Your task to perform on an android device: Open the calendar app, open the side menu, and click the "Day" option Image 0: 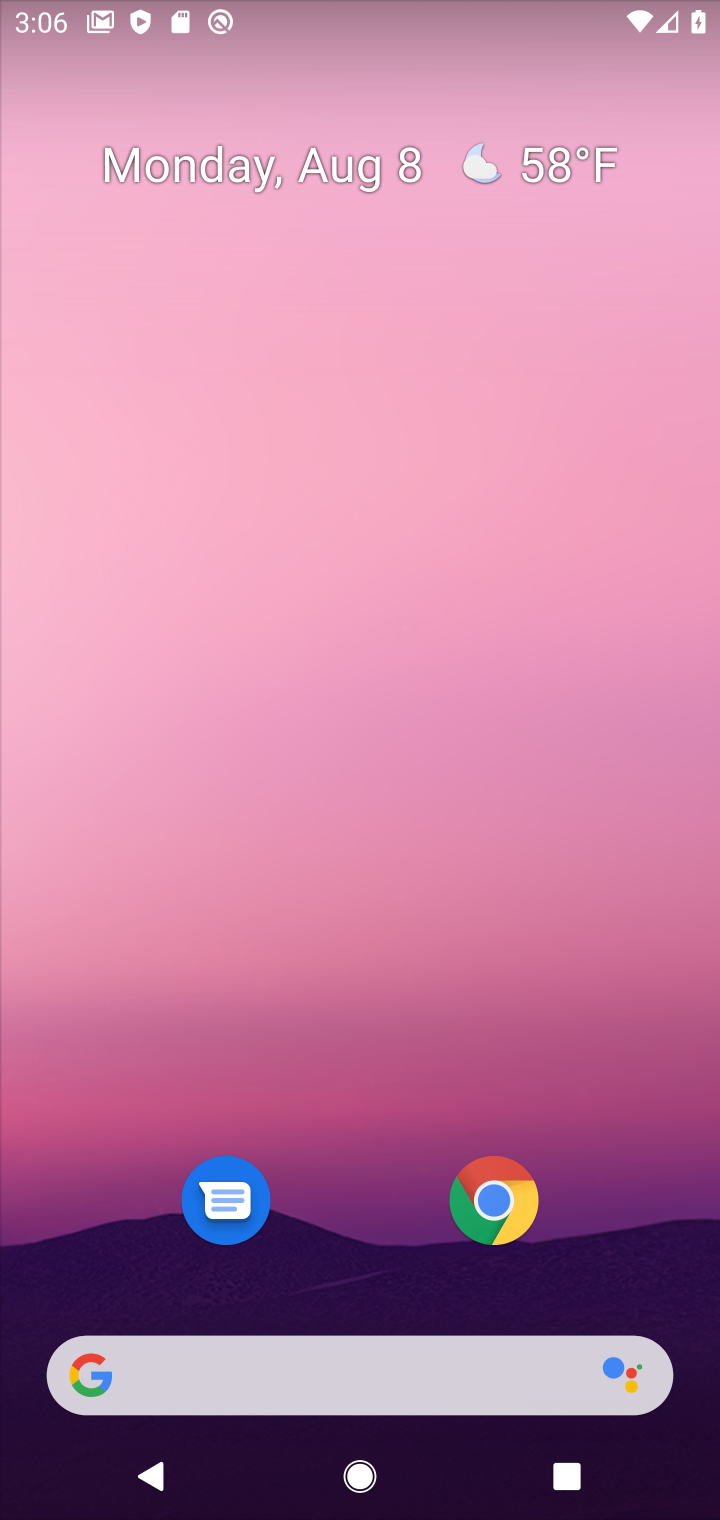
Step 0: drag from (662, 1208) to (459, 387)
Your task to perform on an android device: Open the calendar app, open the side menu, and click the "Day" option Image 1: 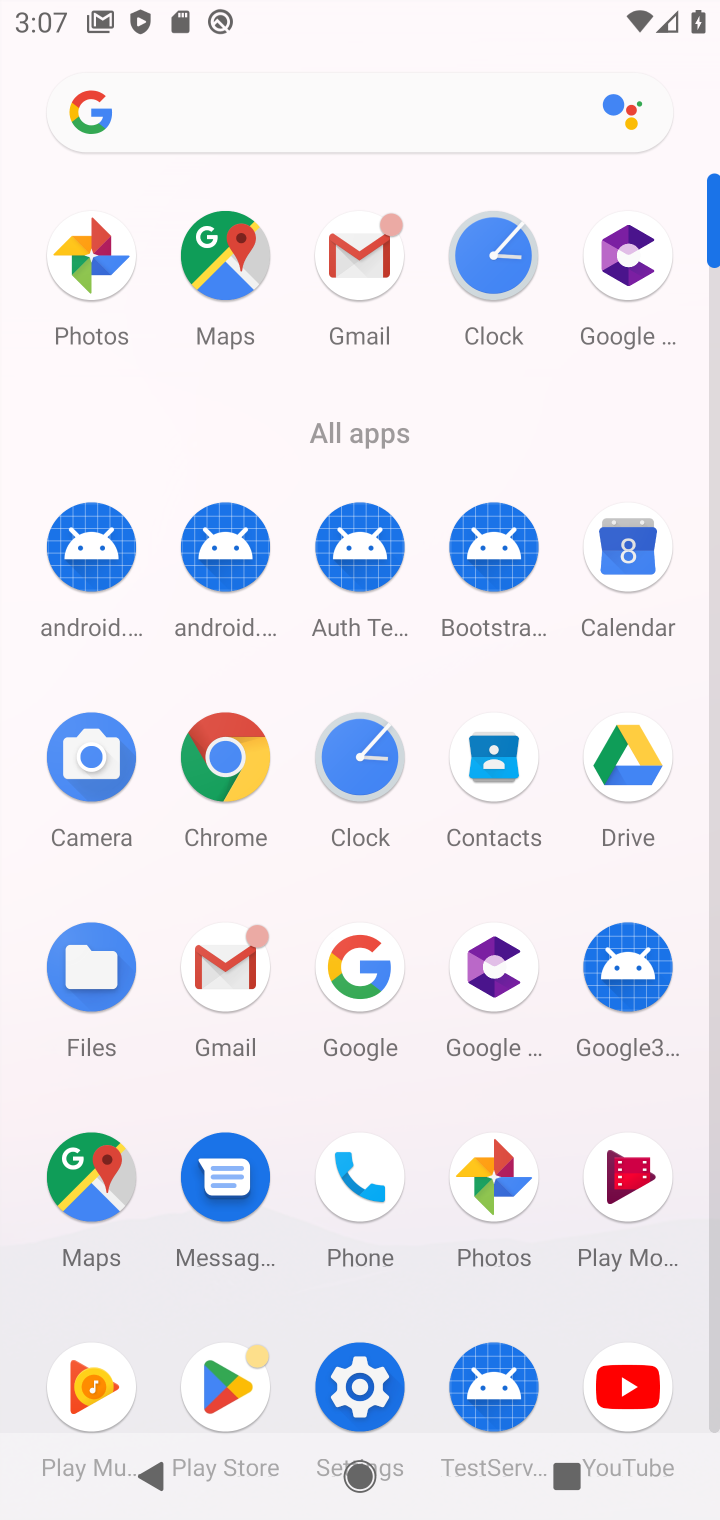
Step 1: click (614, 568)
Your task to perform on an android device: Open the calendar app, open the side menu, and click the "Day" option Image 2: 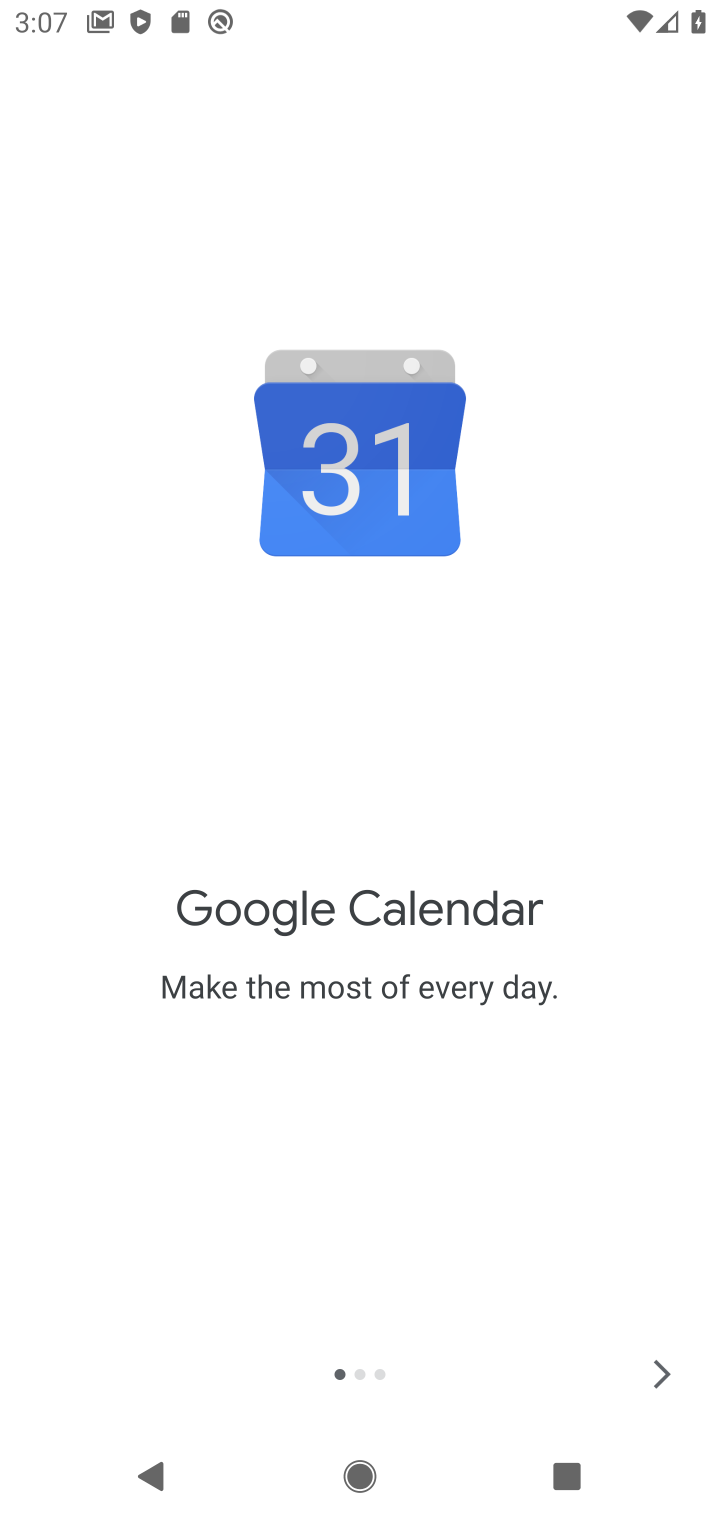
Step 2: click (659, 1373)
Your task to perform on an android device: Open the calendar app, open the side menu, and click the "Day" option Image 3: 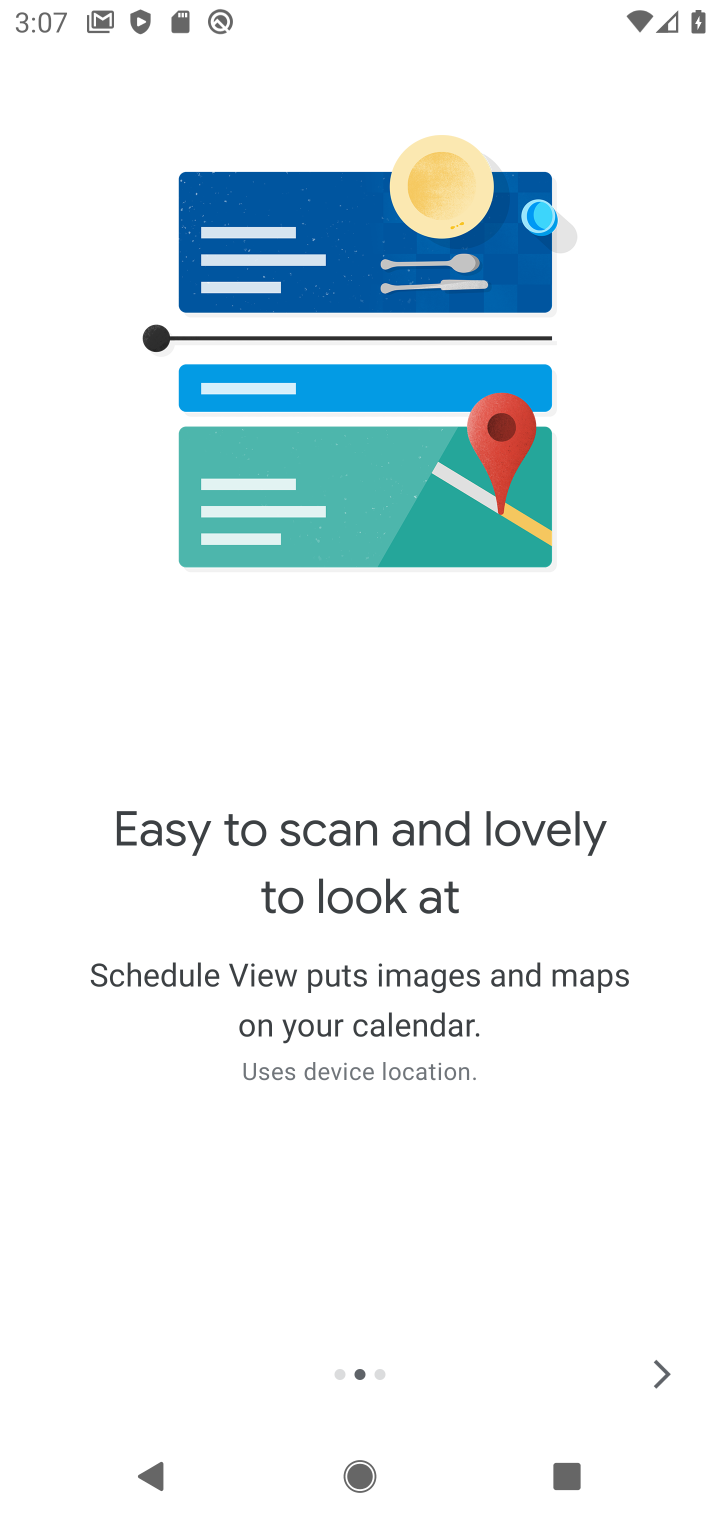
Step 3: click (659, 1373)
Your task to perform on an android device: Open the calendar app, open the side menu, and click the "Day" option Image 4: 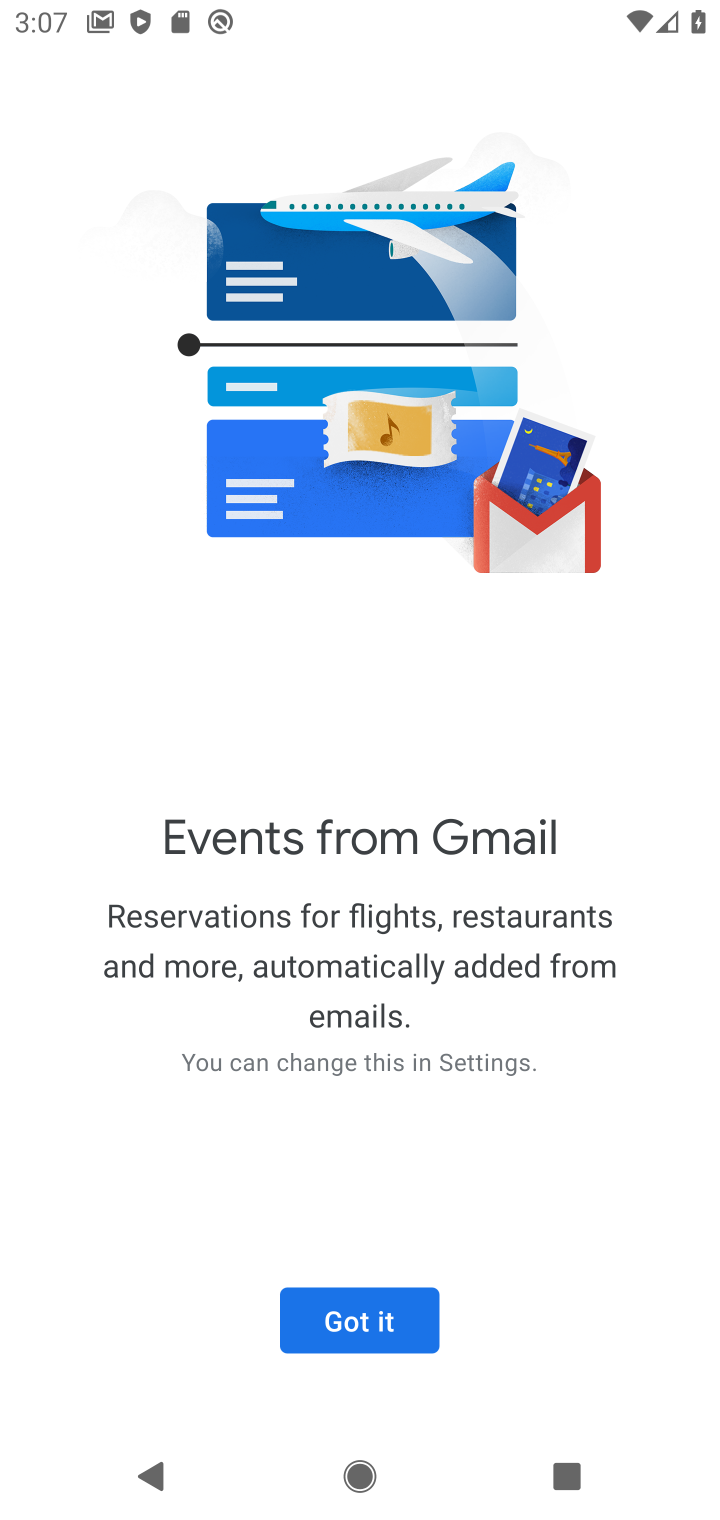
Step 4: click (372, 1326)
Your task to perform on an android device: Open the calendar app, open the side menu, and click the "Day" option Image 5: 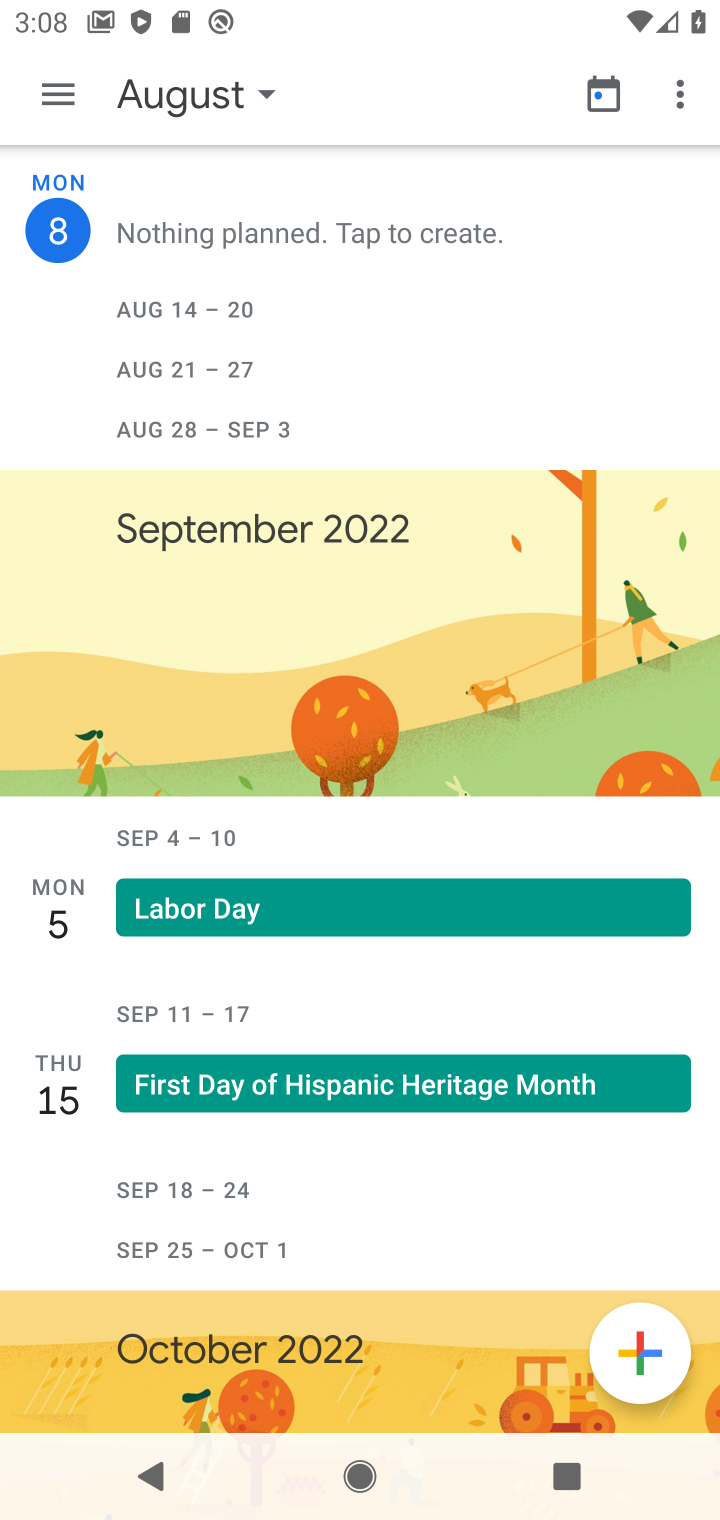
Step 5: click (52, 104)
Your task to perform on an android device: Open the calendar app, open the side menu, and click the "Day" option Image 6: 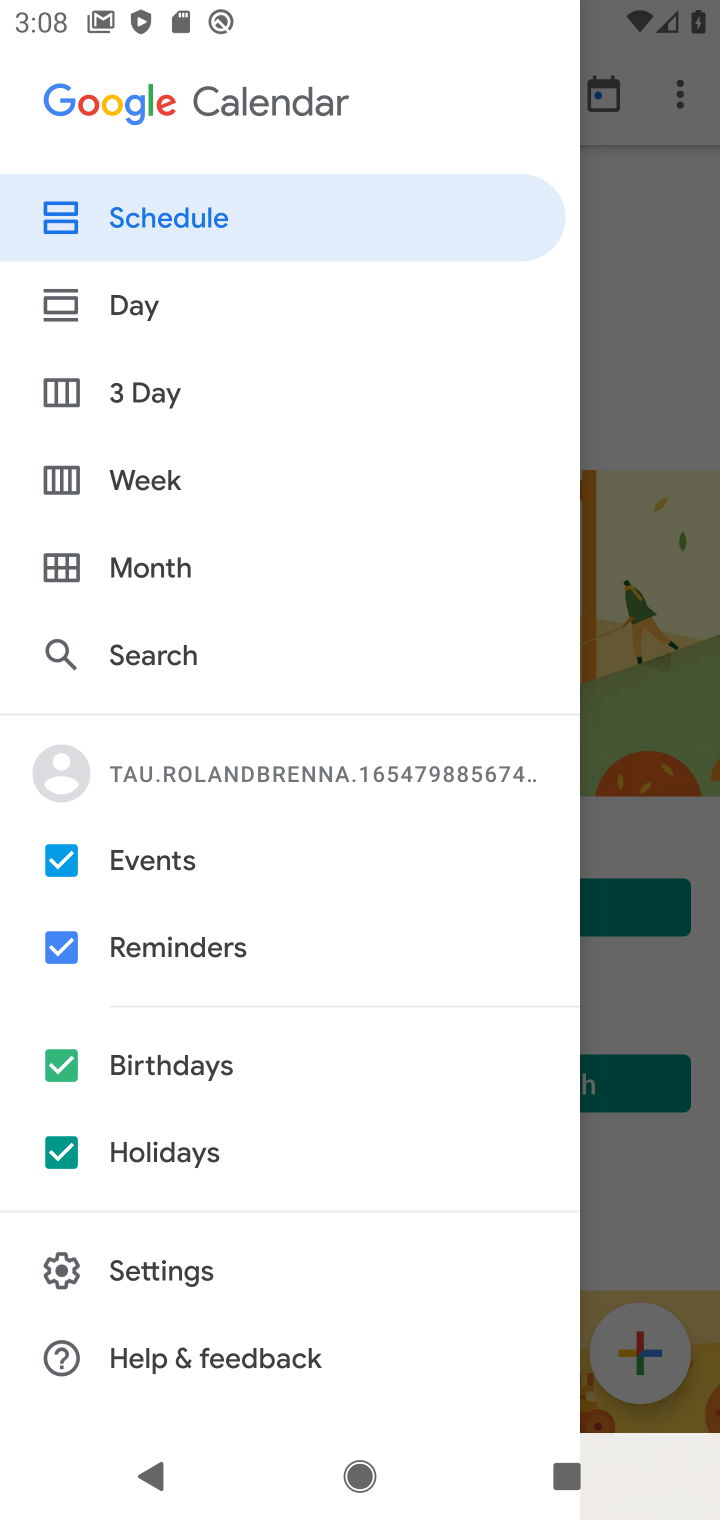
Step 6: click (140, 298)
Your task to perform on an android device: Open the calendar app, open the side menu, and click the "Day" option Image 7: 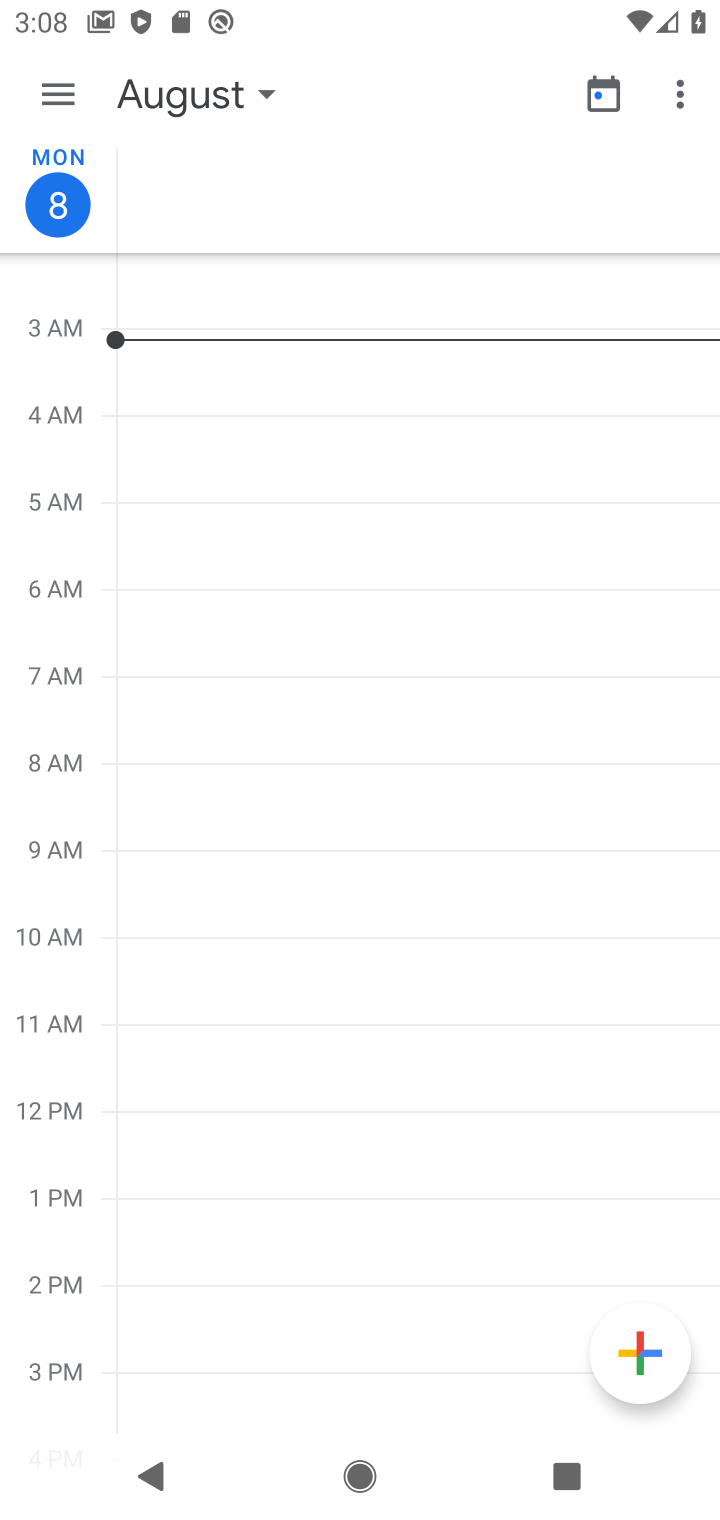
Step 7: task complete